Your task to perform on an android device: add a contact in the contacts app Image 0: 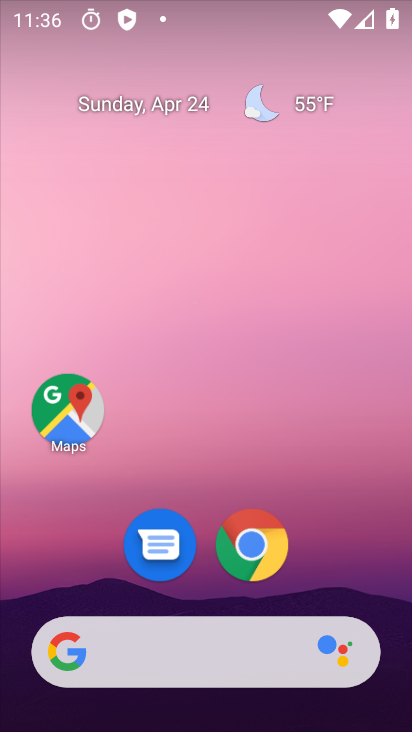
Step 0: drag from (306, 557) to (326, 170)
Your task to perform on an android device: add a contact in the contacts app Image 1: 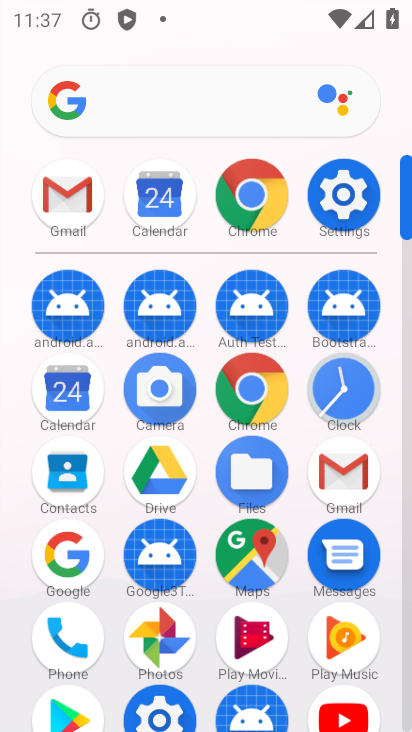
Step 1: click (62, 633)
Your task to perform on an android device: add a contact in the contacts app Image 2: 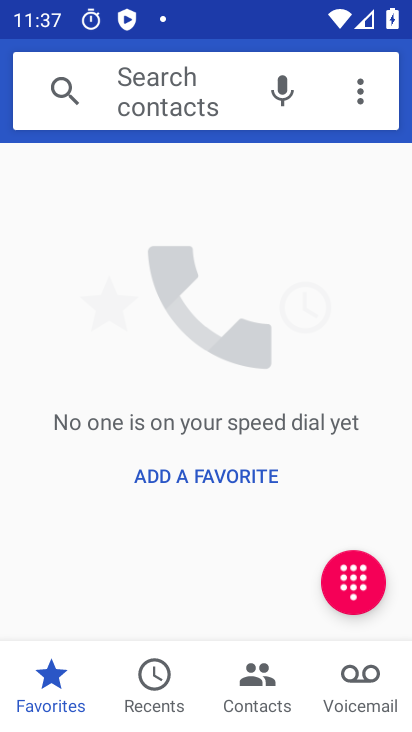
Step 2: click (261, 682)
Your task to perform on an android device: add a contact in the contacts app Image 3: 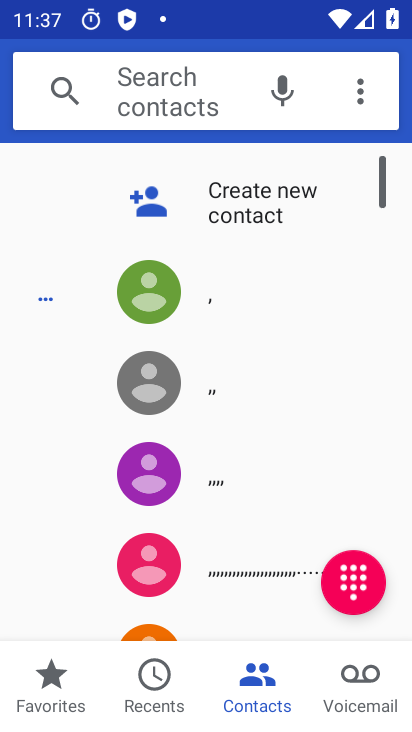
Step 3: click (259, 184)
Your task to perform on an android device: add a contact in the contacts app Image 4: 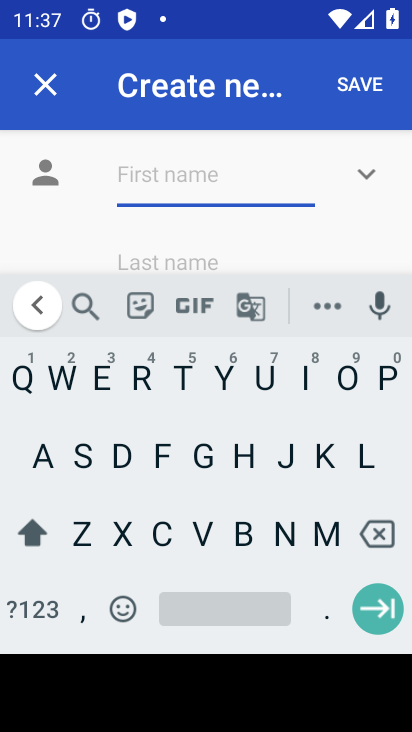
Step 4: click (104, 385)
Your task to perform on an android device: add a contact in the contacts app Image 5: 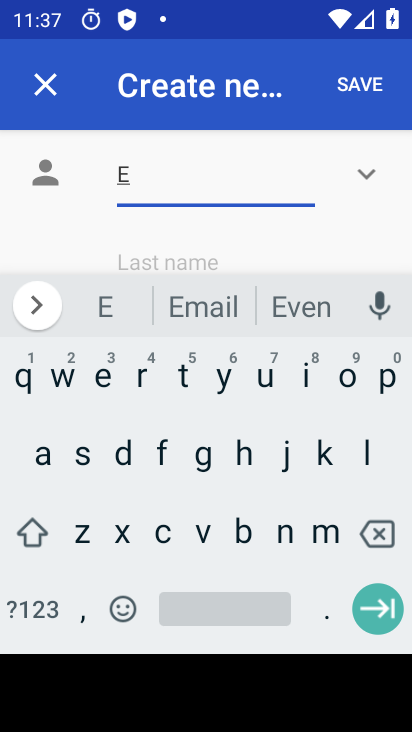
Step 5: click (144, 385)
Your task to perform on an android device: add a contact in the contacts app Image 6: 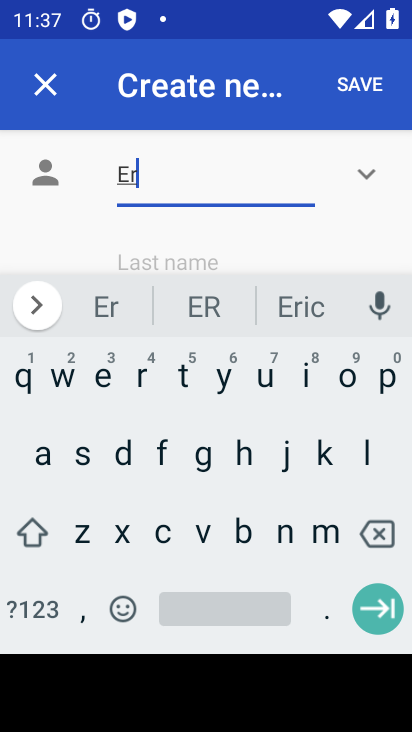
Step 6: drag from (261, 233) to (260, 94)
Your task to perform on an android device: add a contact in the contacts app Image 7: 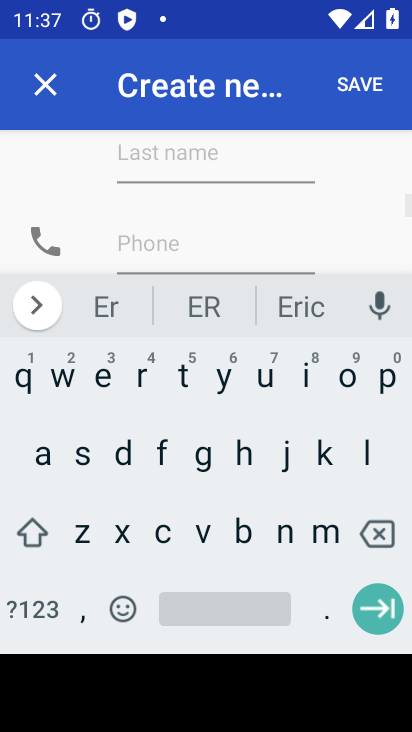
Step 7: click (164, 226)
Your task to perform on an android device: add a contact in the contacts app Image 8: 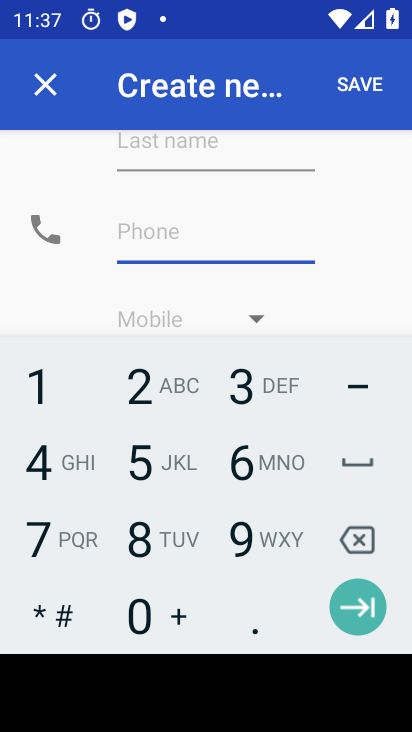
Step 8: click (275, 536)
Your task to perform on an android device: add a contact in the contacts app Image 9: 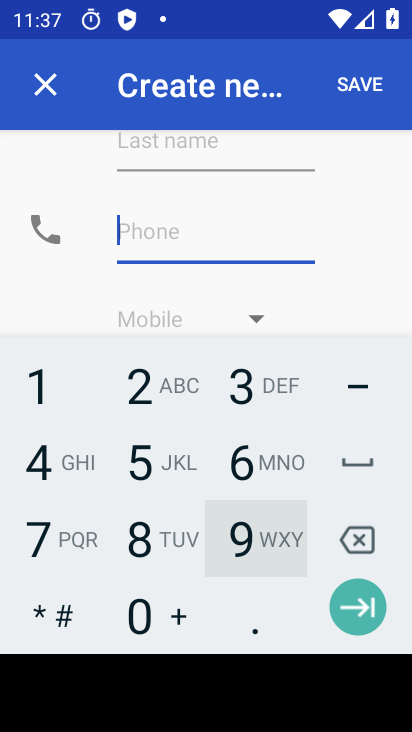
Step 9: click (261, 460)
Your task to perform on an android device: add a contact in the contacts app Image 10: 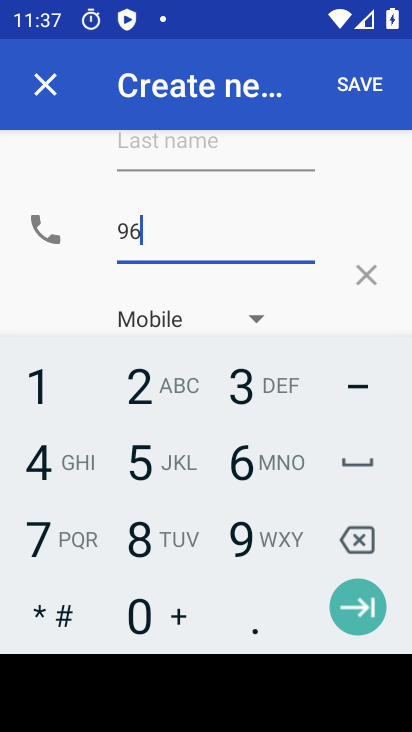
Step 10: click (141, 395)
Your task to perform on an android device: add a contact in the contacts app Image 11: 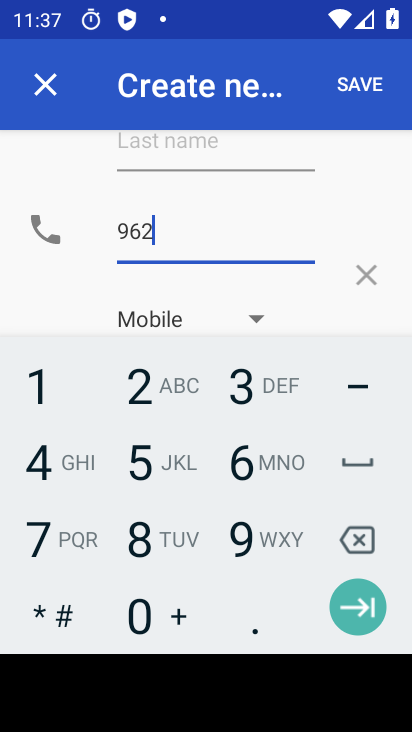
Step 11: click (50, 481)
Your task to perform on an android device: add a contact in the contacts app Image 12: 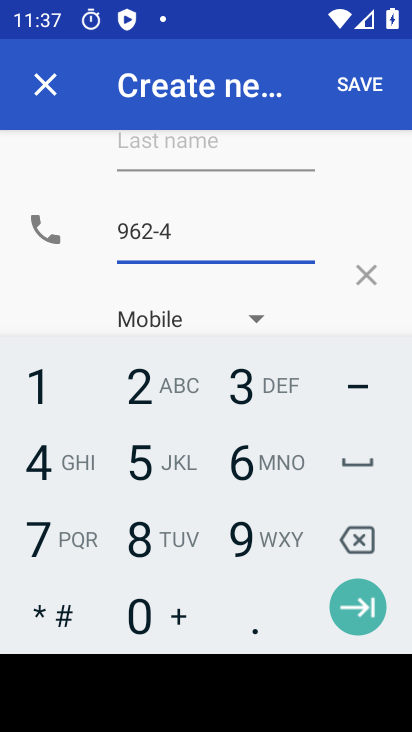
Step 12: click (260, 393)
Your task to perform on an android device: add a contact in the contacts app Image 13: 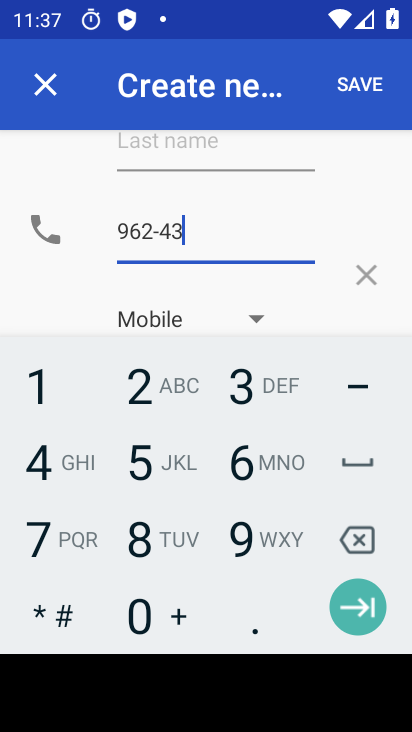
Step 13: click (250, 460)
Your task to perform on an android device: add a contact in the contacts app Image 14: 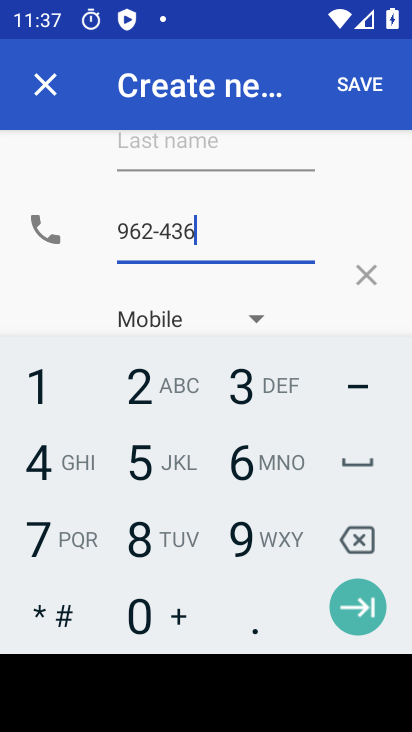
Step 14: click (149, 390)
Your task to perform on an android device: add a contact in the contacts app Image 15: 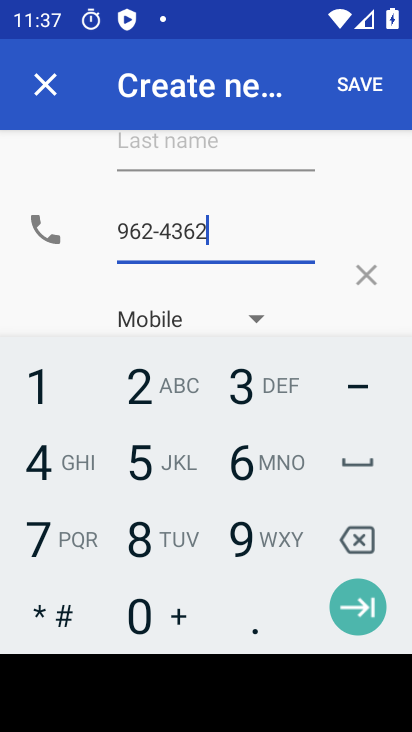
Step 15: click (161, 461)
Your task to perform on an android device: add a contact in the contacts app Image 16: 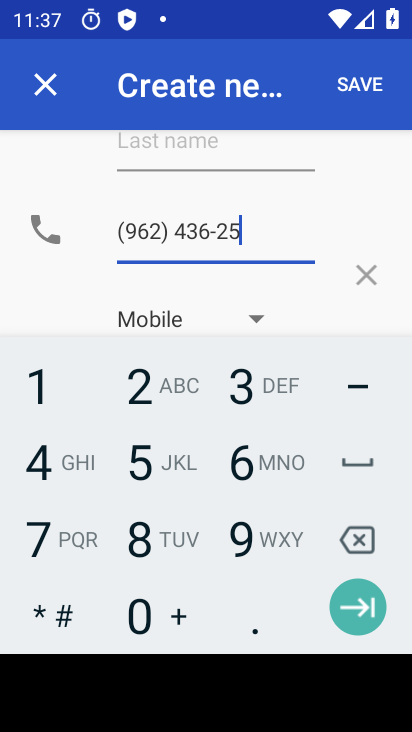
Step 16: click (50, 393)
Your task to perform on an android device: add a contact in the contacts app Image 17: 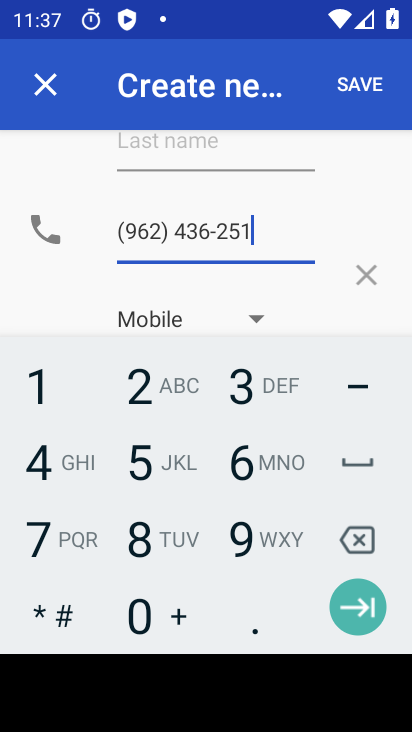
Step 17: click (186, 391)
Your task to perform on an android device: add a contact in the contacts app Image 18: 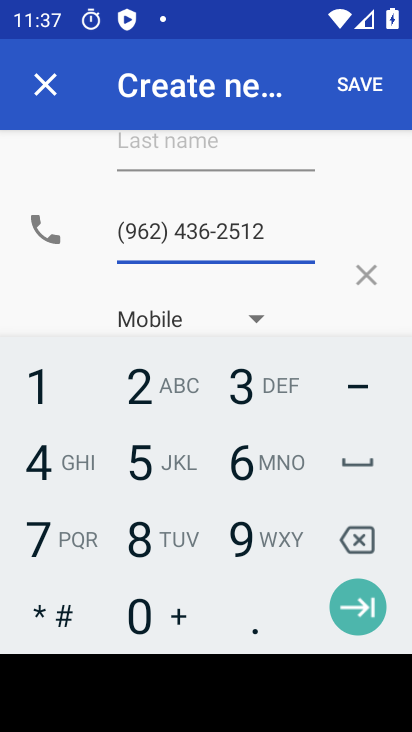
Step 18: click (349, 86)
Your task to perform on an android device: add a contact in the contacts app Image 19: 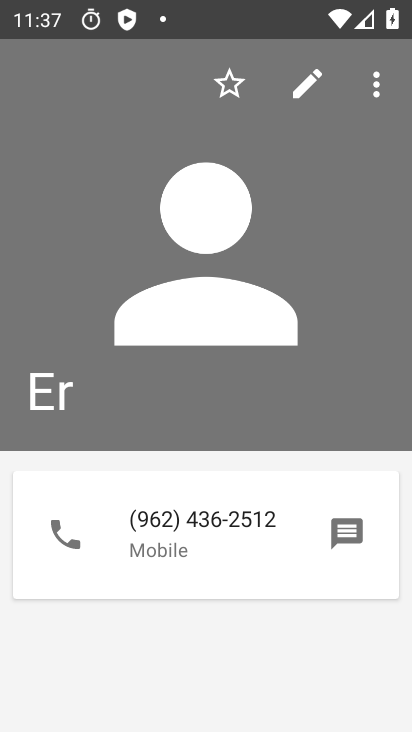
Step 19: task complete